Your task to perform on an android device: find which apps use the phone's location Image 0: 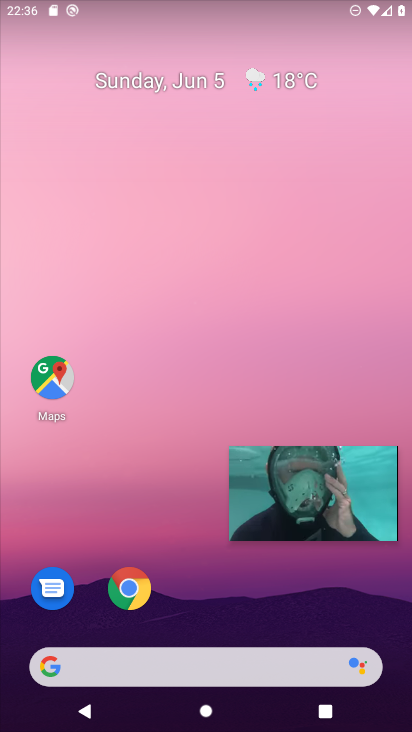
Step 0: drag from (225, 591) to (248, 266)
Your task to perform on an android device: find which apps use the phone's location Image 1: 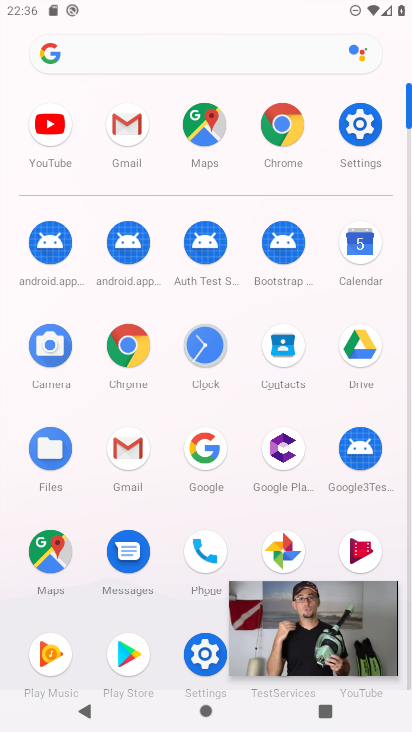
Step 1: click (368, 147)
Your task to perform on an android device: find which apps use the phone's location Image 2: 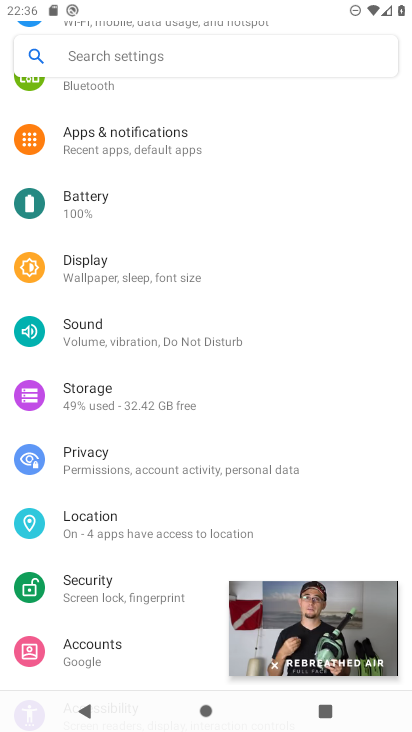
Step 2: drag from (331, 362) to (336, 258)
Your task to perform on an android device: find which apps use the phone's location Image 3: 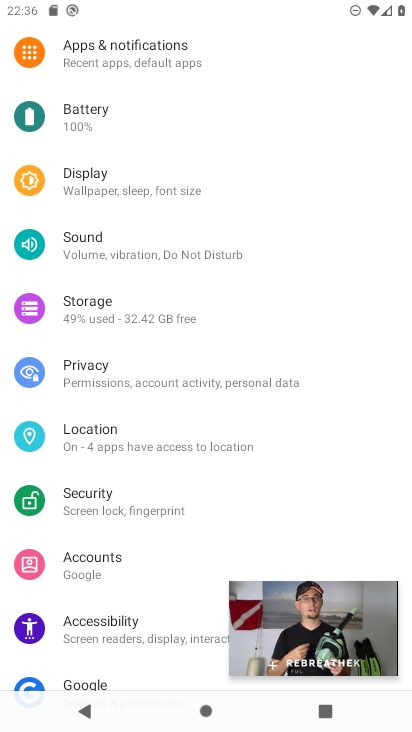
Step 3: drag from (329, 386) to (314, 222)
Your task to perform on an android device: find which apps use the phone's location Image 4: 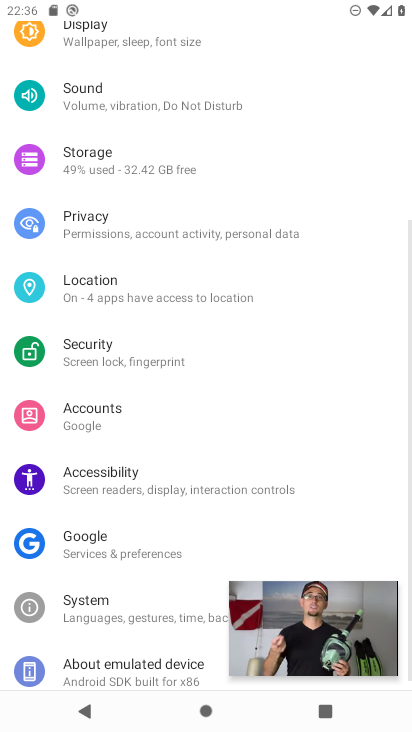
Step 4: drag from (305, 382) to (315, 262)
Your task to perform on an android device: find which apps use the phone's location Image 5: 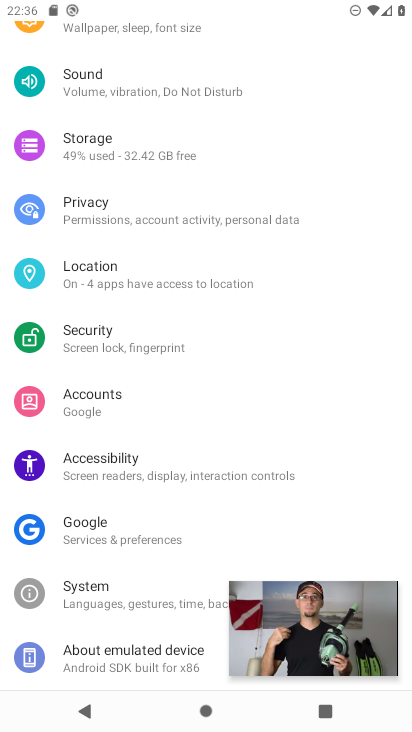
Step 5: drag from (335, 450) to (330, 317)
Your task to perform on an android device: find which apps use the phone's location Image 6: 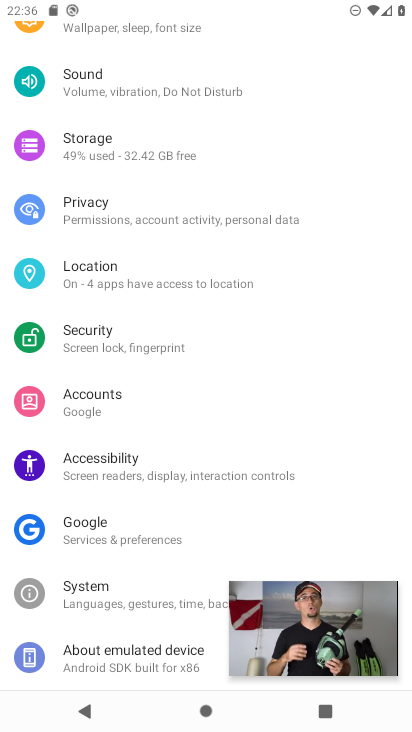
Step 6: drag from (331, 237) to (332, 330)
Your task to perform on an android device: find which apps use the phone's location Image 7: 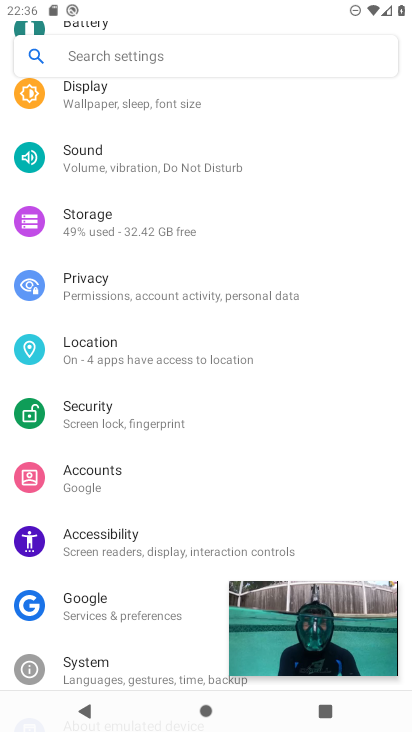
Step 7: drag from (335, 222) to (337, 302)
Your task to perform on an android device: find which apps use the phone's location Image 8: 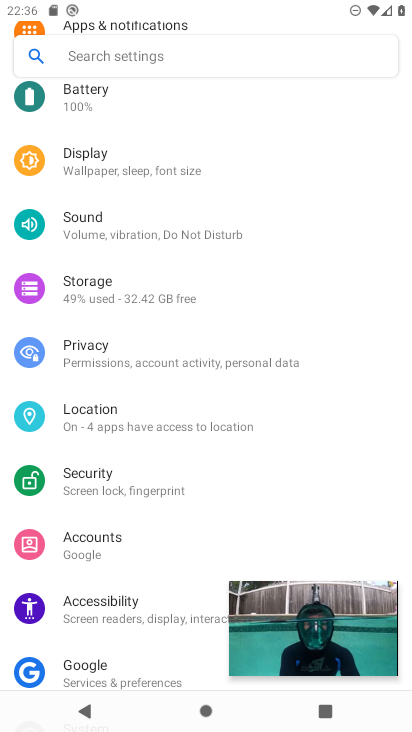
Step 8: click (264, 412)
Your task to perform on an android device: find which apps use the phone's location Image 9: 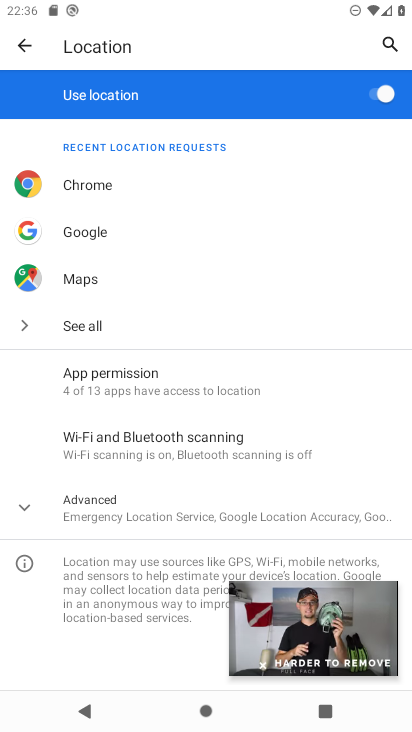
Step 9: click (157, 387)
Your task to perform on an android device: find which apps use the phone's location Image 10: 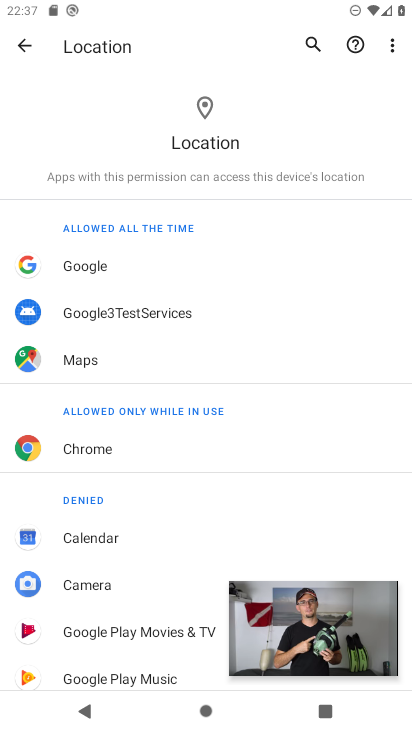
Step 10: drag from (181, 463) to (179, 339)
Your task to perform on an android device: find which apps use the phone's location Image 11: 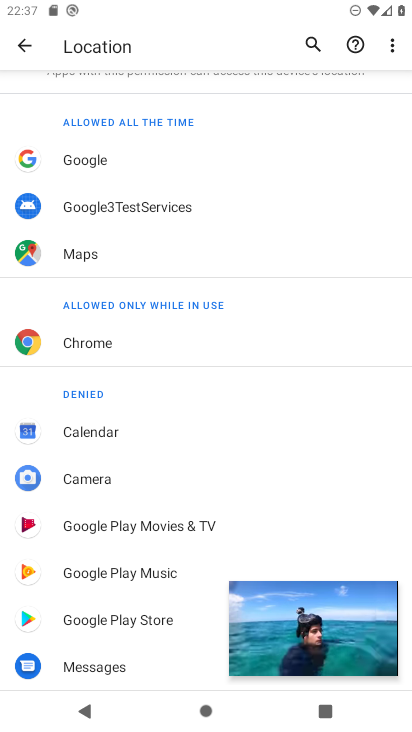
Step 11: drag from (207, 437) to (219, 327)
Your task to perform on an android device: find which apps use the phone's location Image 12: 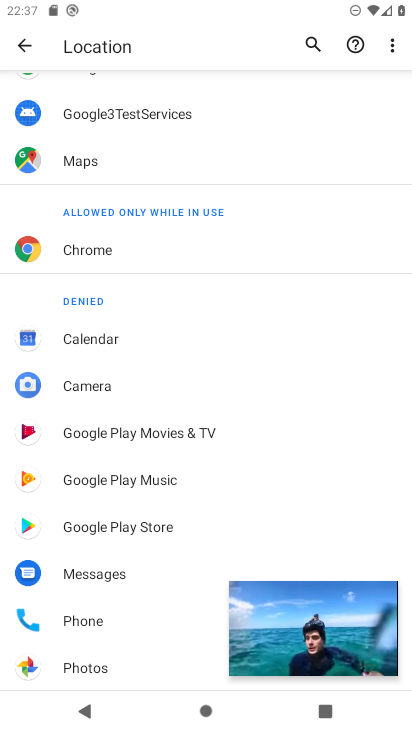
Step 12: drag from (203, 494) to (208, 337)
Your task to perform on an android device: find which apps use the phone's location Image 13: 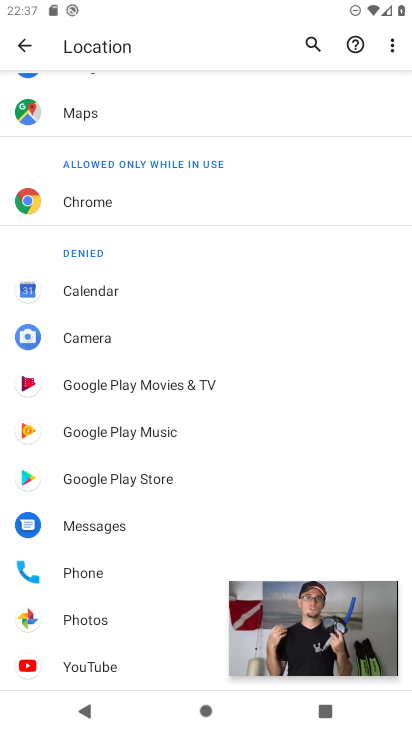
Step 13: click (106, 625)
Your task to perform on an android device: find which apps use the phone's location Image 14: 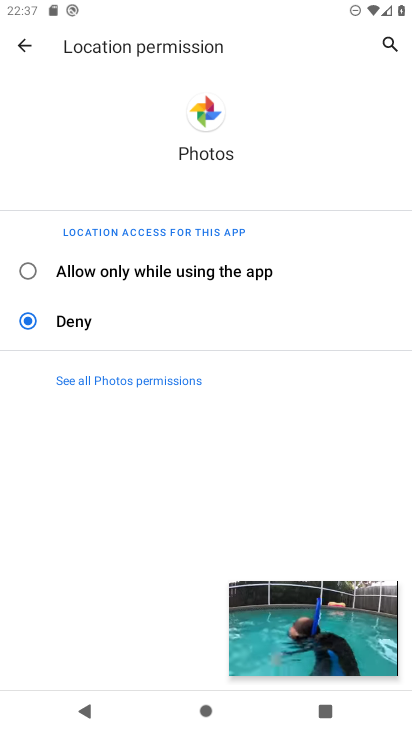
Step 14: click (70, 274)
Your task to perform on an android device: find which apps use the phone's location Image 15: 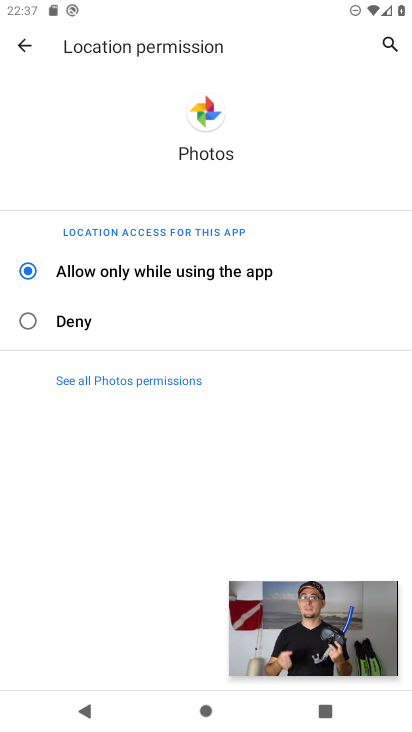
Step 15: task complete